Your task to perform on an android device: add a label to a message in the gmail app Image 0: 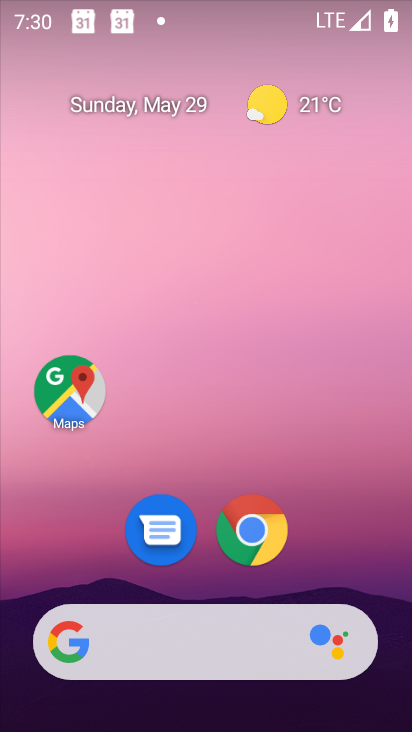
Step 0: drag from (281, 659) to (127, 66)
Your task to perform on an android device: add a label to a message in the gmail app Image 1: 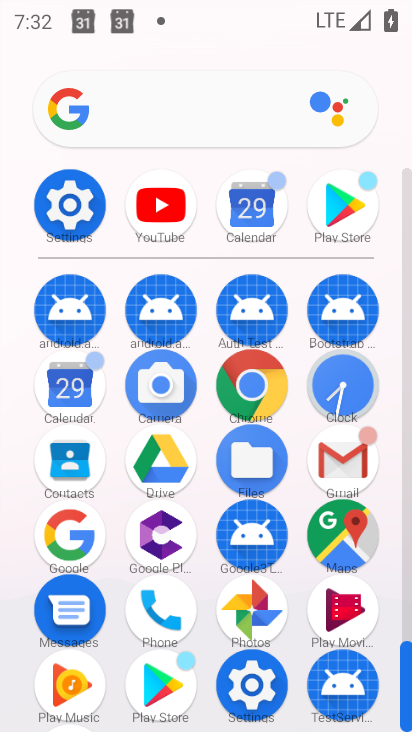
Step 1: click (361, 457)
Your task to perform on an android device: add a label to a message in the gmail app Image 2: 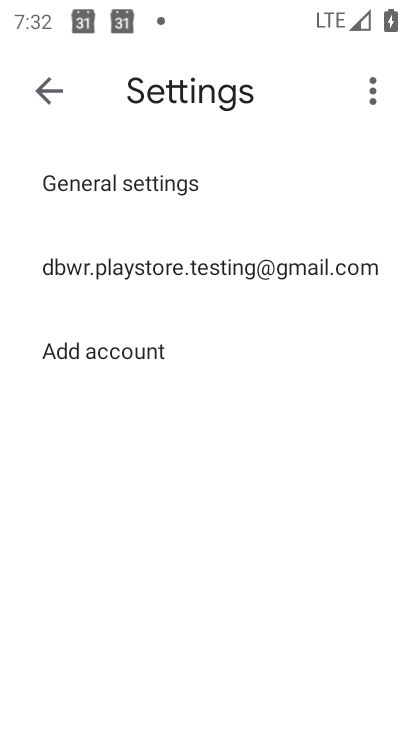
Step 2: click (31, 89)
Your task to perform on an android device: add a label to a message in the gmail app Image 3: 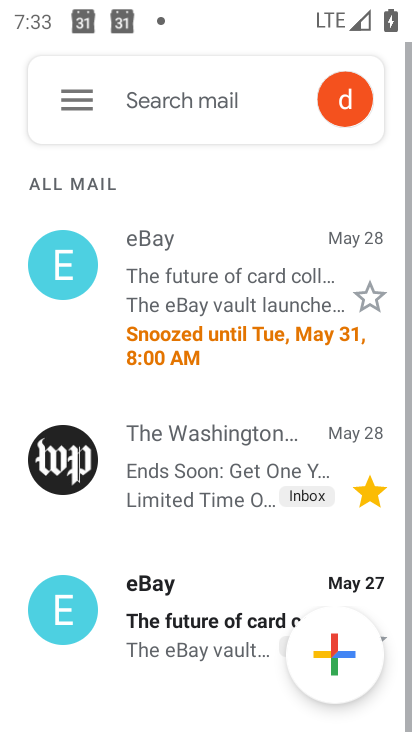
Step 3: click (67, 81)
Your task to perform on an android device: add a label to a message in the gmail app Image 4: 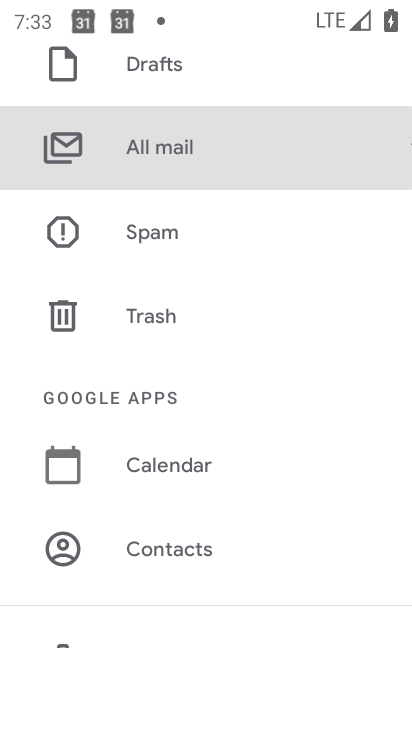
Step 4: drag from (175, 534) to (102, 144)
Your task to perform on an android device: add a label to a message in the gmail app Image 5: 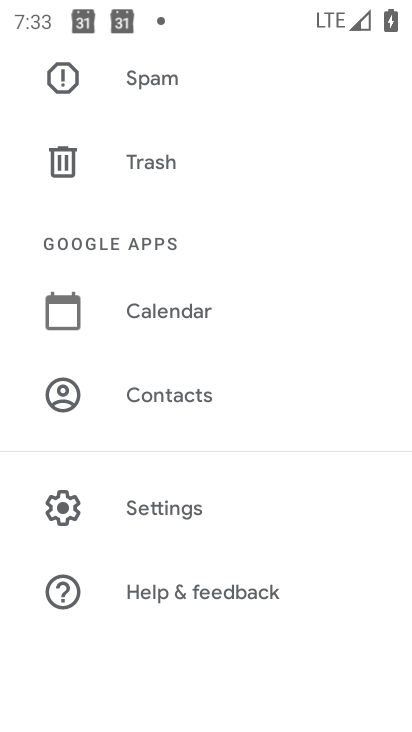
Step 5: click (171, 515)
Your task to perform on an android device: add a label to a message in the gmail app Image 6: 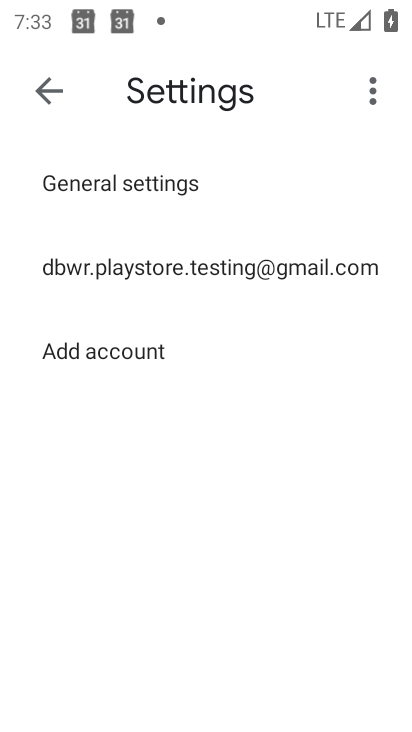
Step 6: click (178, 271)
Your task to perform on an android device: add a label to a message in the gmail app Image 7: 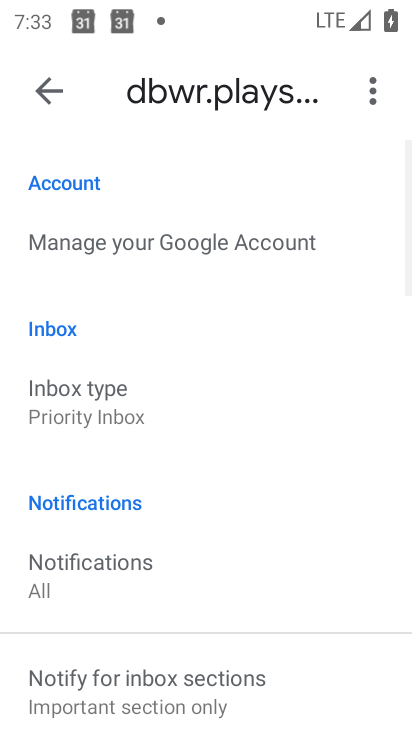
Step 7: drag from (214, 605) to (200, 374)
Your task to perform on an android device: add a label to a message in the gmail app Image 8: 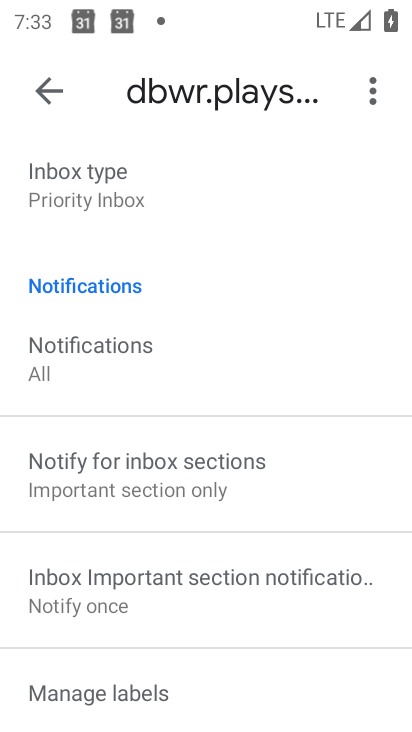
Step 8: click (137, 682)
Your task to perform on an android device: add a label to a message in the gmail app Image 9: 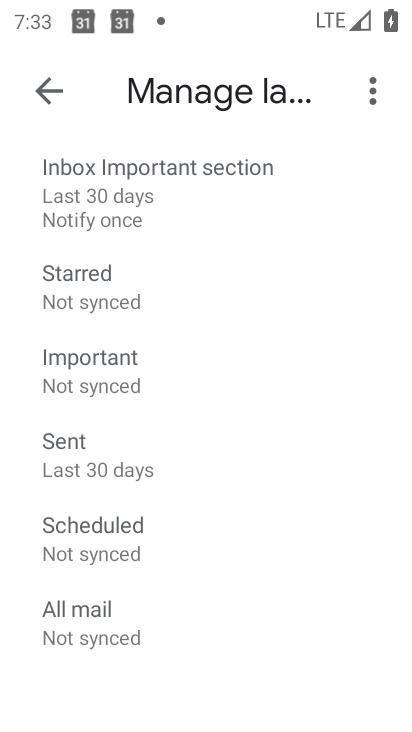
Step 9: click (116, 363)
Your task to perform on an android device: add a label to a message in the gmail app Image 10: 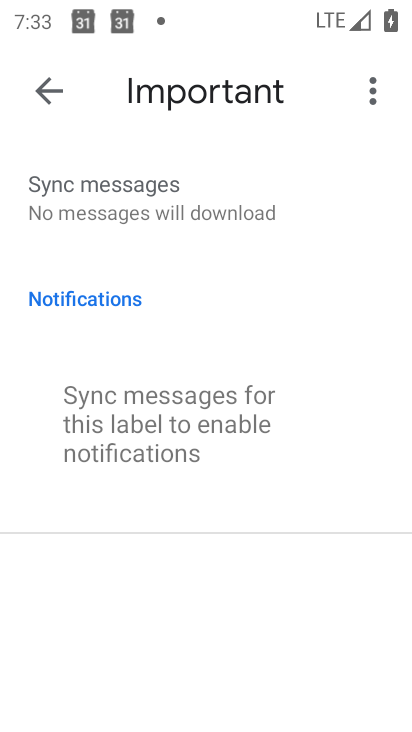
Step 10: task complete